Your task to perform on an android device: turn off improve location accuracy Image 0: 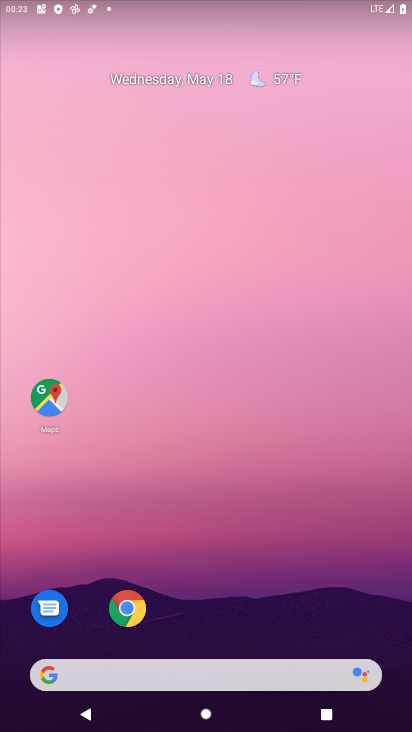
Step 0: click (253, 558)
Your task to perform on an android device: turn off improve location accuracy Image 1: 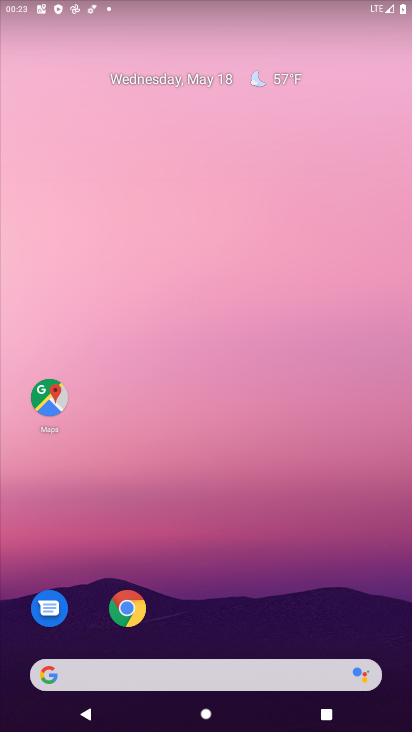
Step 1: drag from (253, 558) to (143, 9)
Your task to perform on an android device: turn off improve location accuracy Image 2: 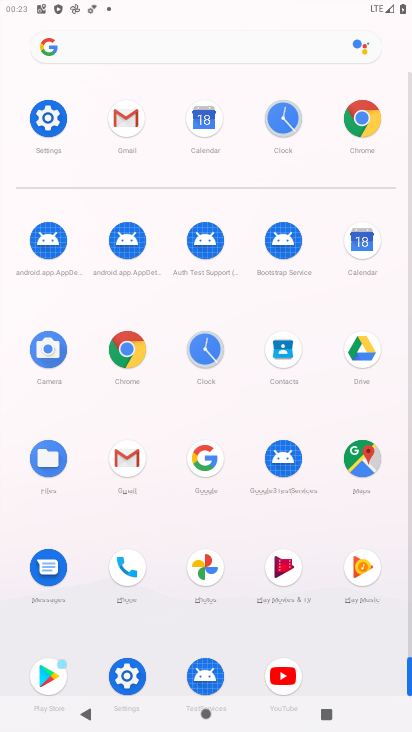
Step 2: click (53, 112)
Your task to perform on an android device: turn off improve location accuracy Image 3: 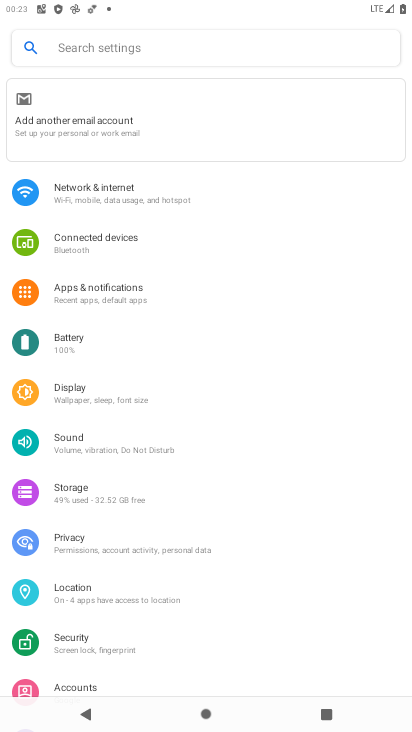
Step 3: drag from (129, 310) to (10, 288)
Your task to perform on an android device: turn off improve location accuracy Image 4: 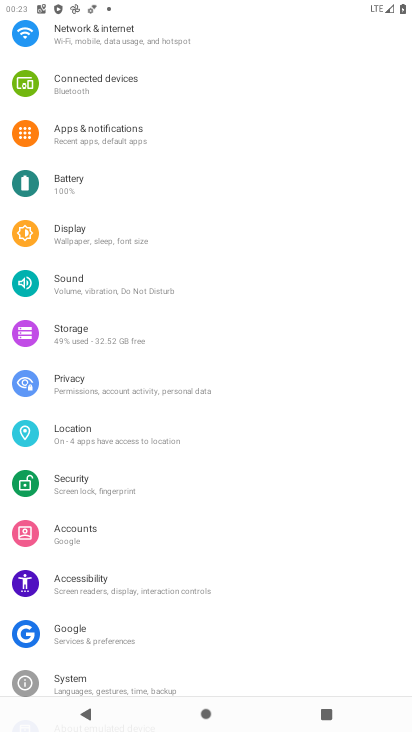
Step 4: drag from (4, 352) to (38, 436)
Your task to perform on an android device: turn off improve location accuracy Image 5: 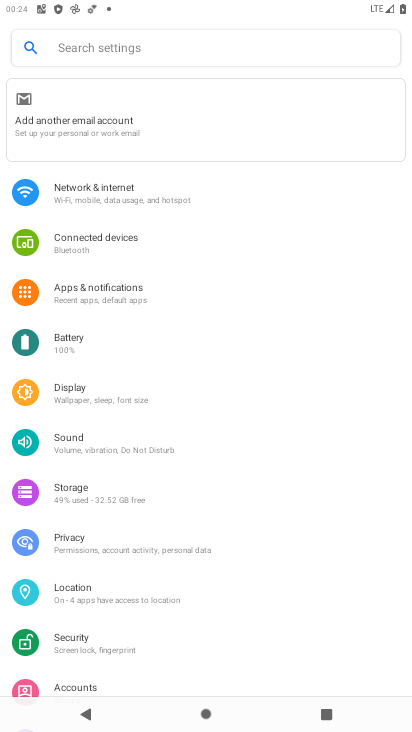
Step 5: click (79, 580)
Your task to perform on an android device: turn off improve location accuracy Image 6: 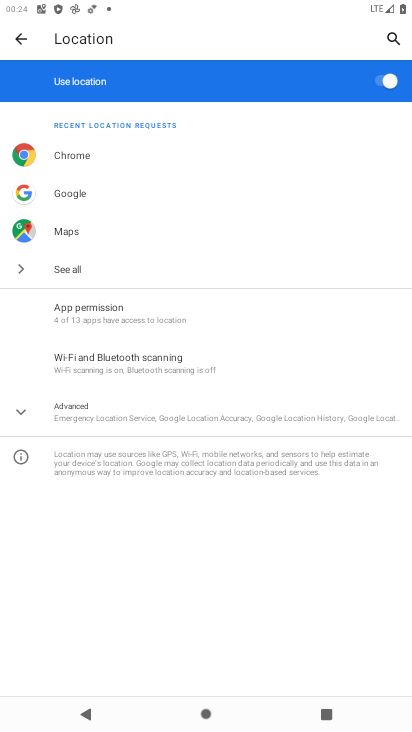
Step 6: click (33, 406)
Your task to perform on an android device: turn off improve location accuracy Image 7: 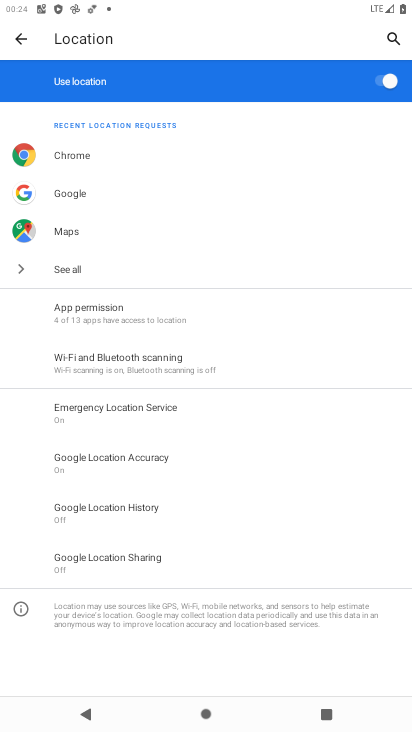
Step 7: click (122, 454)
Your task to perform on an android device: turn off improve location accuracy Image 8: 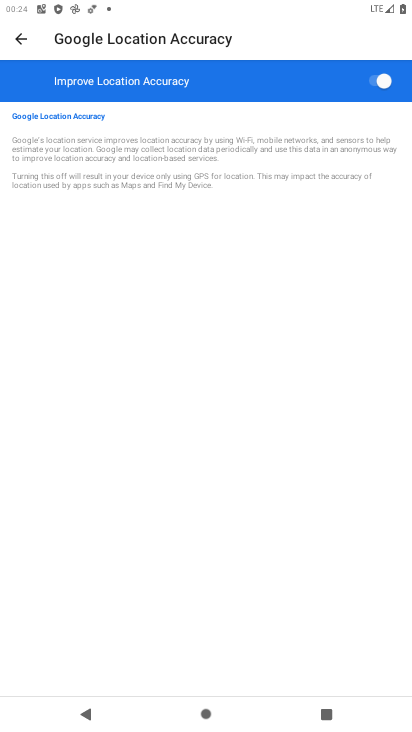
Step 8: click (387, 77)
Your task to perform on an android device: turn off improve location accuracy Image 9: 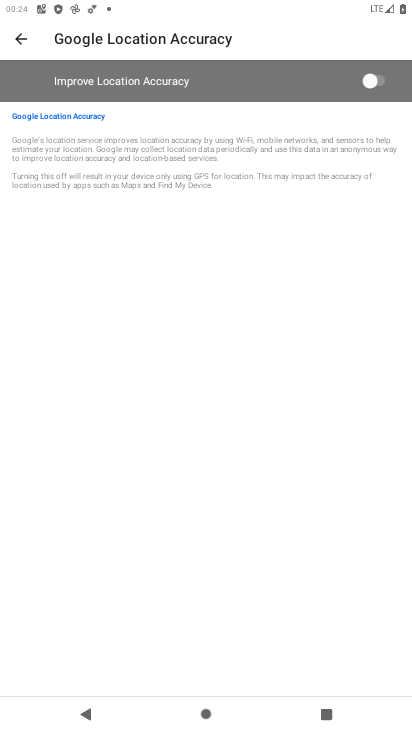
Step 9: task complete